Your task to perform on an android device: allow notifications from all sites in the chrome app Image 0: 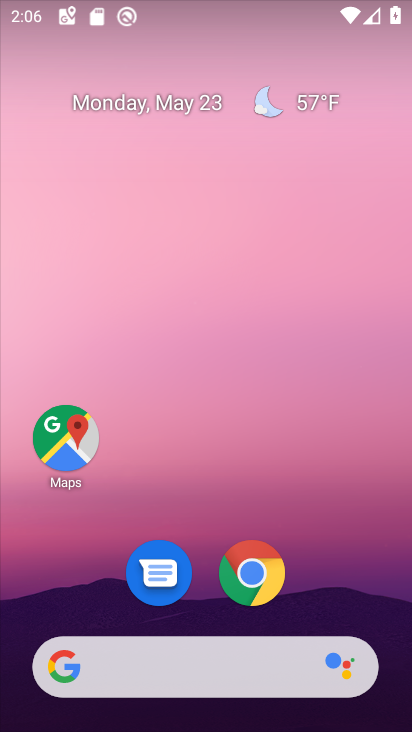
Step 0: click (255, 564)
Your task to perform on an android device: allow notifications from all sites in the chrome app Image 1: 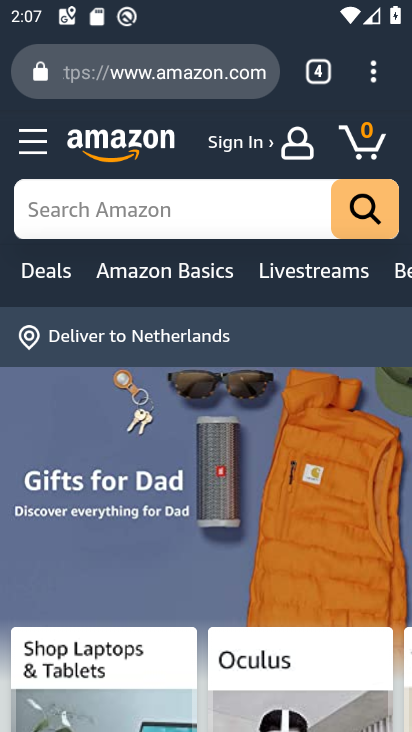
Step 1: click (370, 65)
Your task to perform on an android device: allow notifications from all sites in the chrome app Image 2: 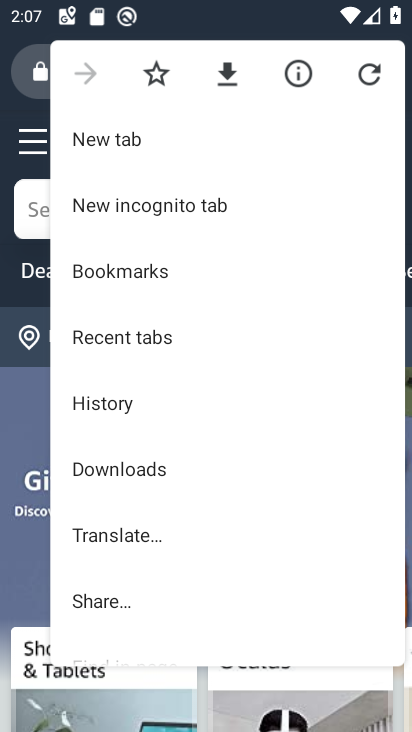
Step 2: drag from (172, 375) to (180, 109)
Your task to perform on an android device: allow notifications from all sites in the chrome app Image 3: 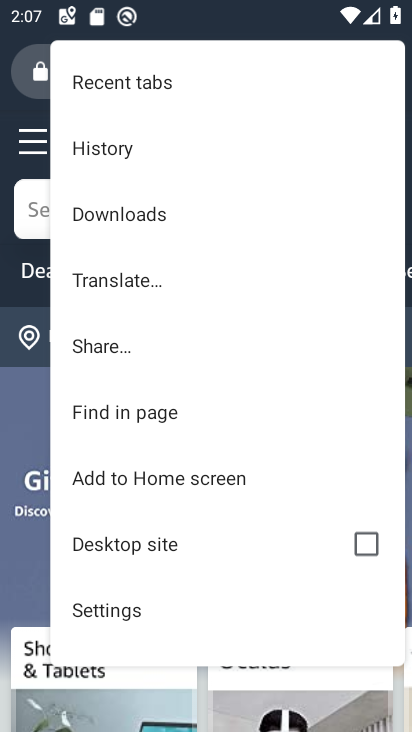
Step 3: click (134, 609)
Your task to perform on an android device: allow notifications from all sites in the chrome app Image 4: 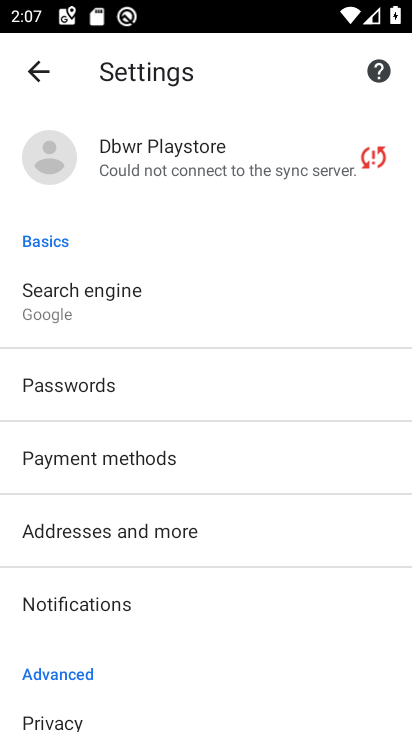
Step 4: drag from (148, 639) to (193, 280)
Your task to perform on an android device: allow notifications from all sites in the chrome app Image 5: 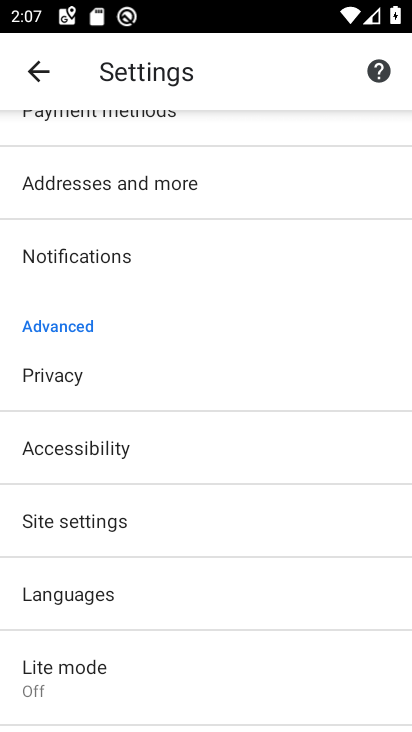
Step 5: click (138, 516)
Your task to perform on an android device: allow notifications from all sites in the chrome app Image 6: 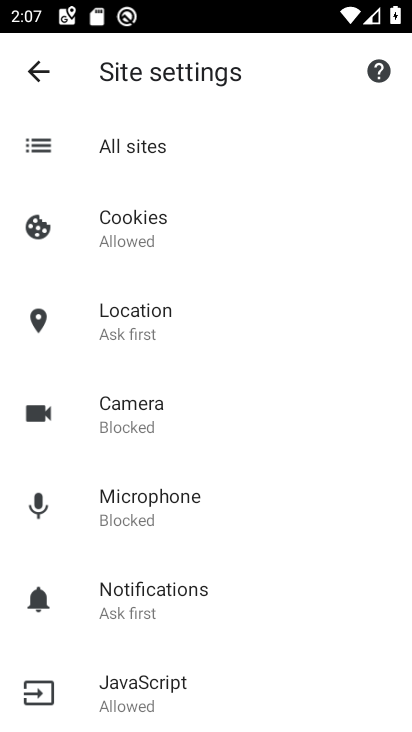
Step 6: click (218, 156)
Your task to perform on an android device: allow notifications from all sites in the chrome app Image 7: 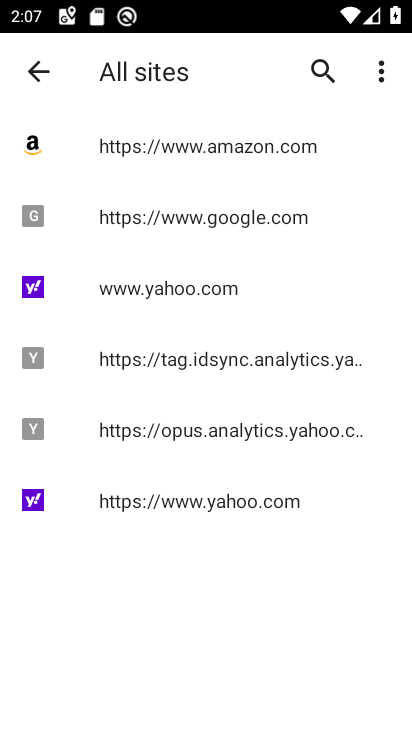
Step 7: click (384, 72)
Your task to perform on an android device: allow notifications from all sites in the chrome app Image 8: 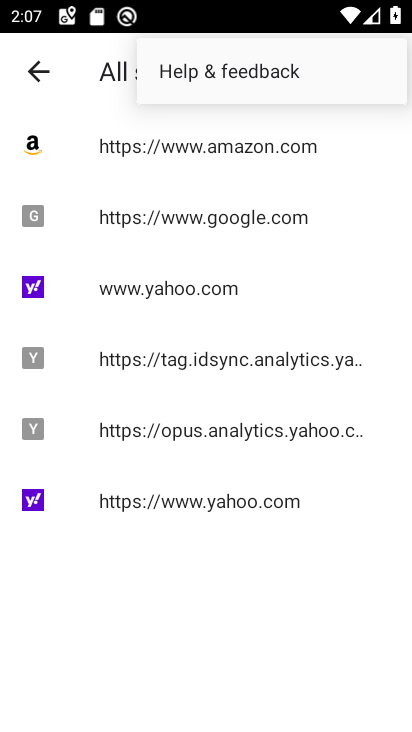
Step 8: task complete